Your task to perform on an android device: toggle location history Image 0: 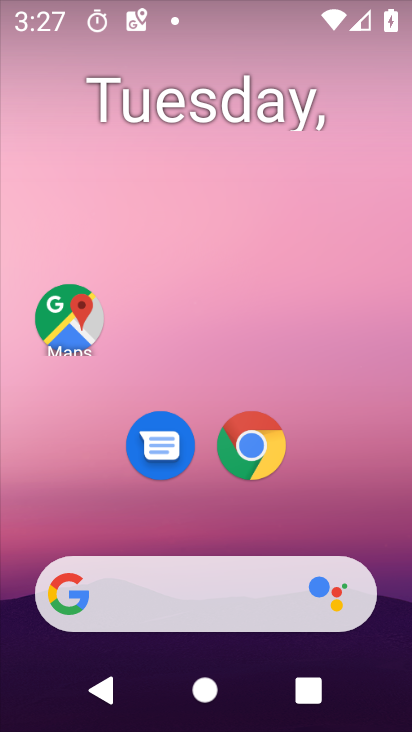
Step 0: drag from (185, 539) to (396, 75)
Your task to perform on an android device: toggle location history Image 1: 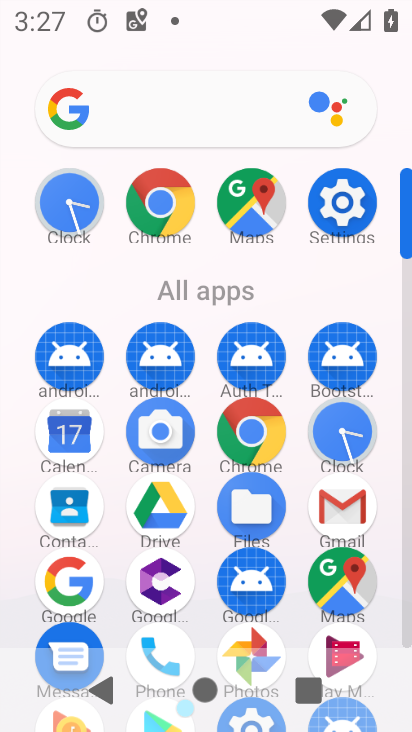
Step 1: click (332, 198)
Your task to perform on an android device: toggle location history Image 2: 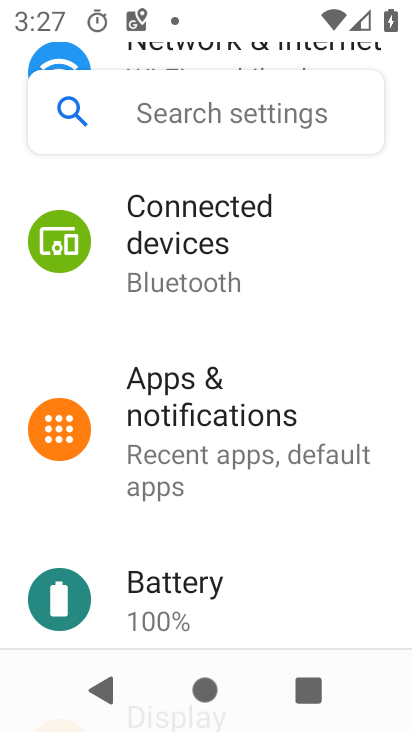
Step 2: drag from (252, 163) to (170, 4)
Your task to perform on an android device: toggle location history Image 3: 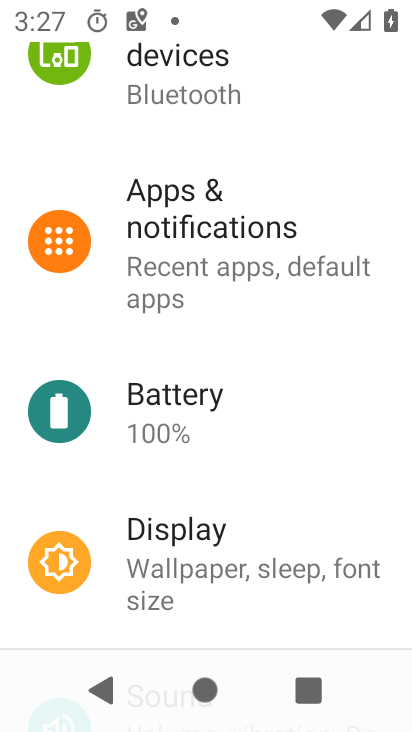
Step 3: drag from (192, 489) to (178, 77)
Your task to perform on an android device: toggle location history Image 4: 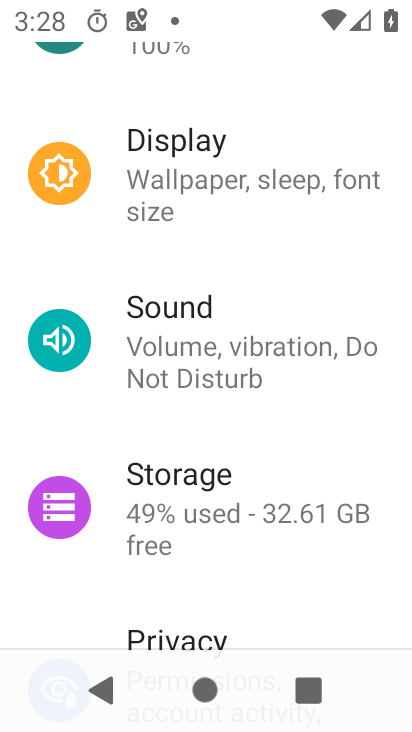
Step 4: drag from (190, 572) to (164, 160)
Your task to perform on an android device: toggle location history Image 5: 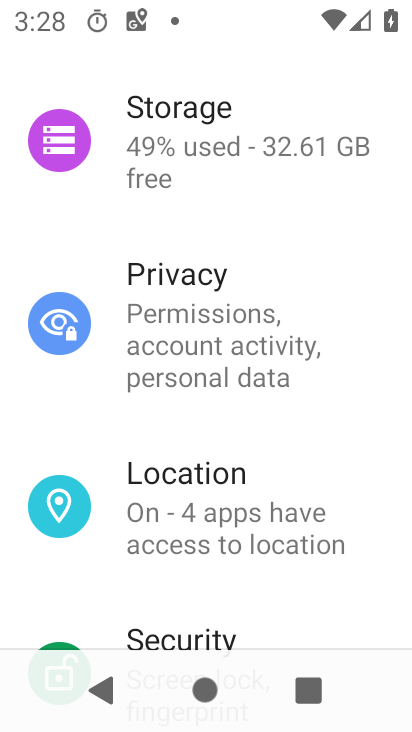
Step 5: click (102, 546)
Your task to perform on an android device: toggle location history Image 6: 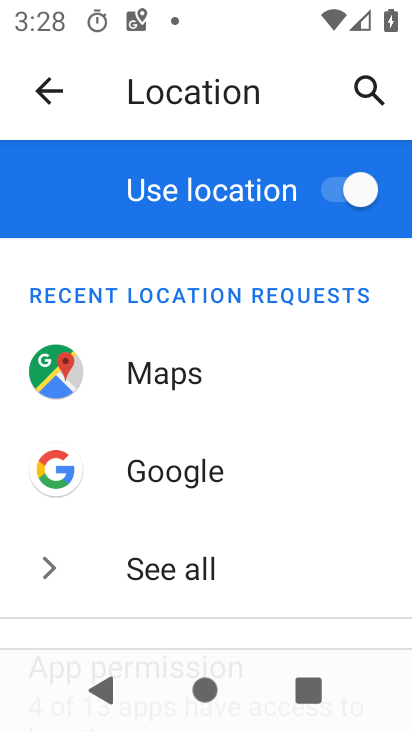
Step 6: drag from (227, 549) to (183, 102)
Your task to perform on an android device: toggle location history Image 7: 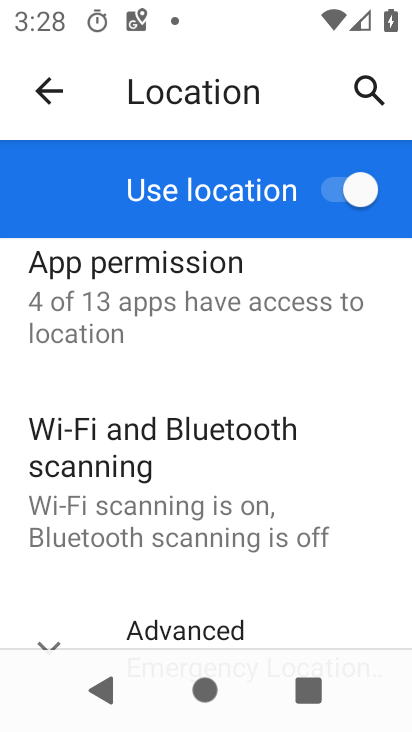
Step 7: click (144, 608)
Your task to perform on an android device: toggle location history Image 8: 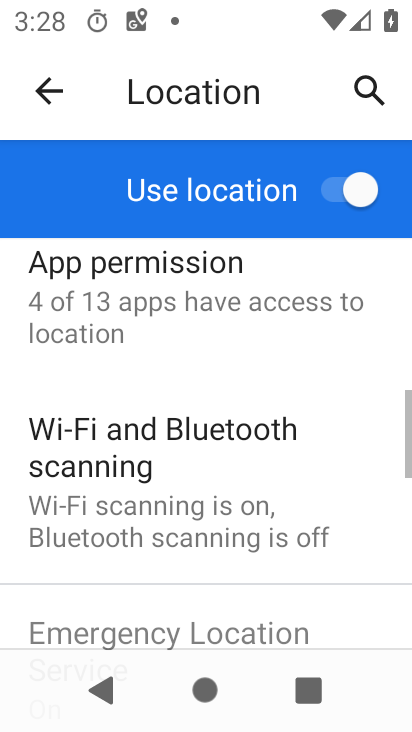
Step 8: drag from (144, 608) to (130, 112)
Your task to perform on an android device: toggle location history Image 9: 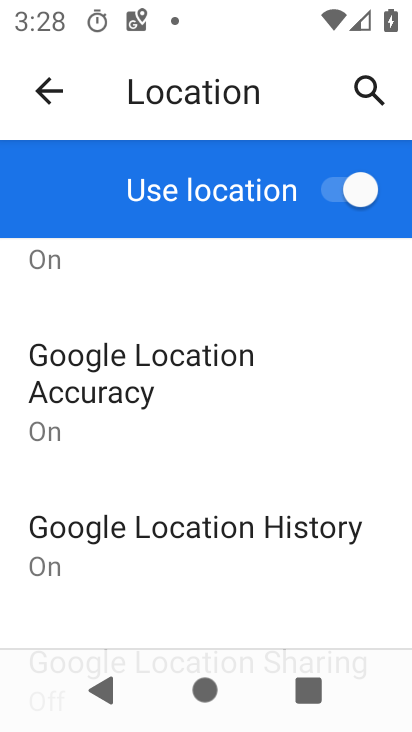
Step 9: click (172, 532)
Your task to perform on an android device: toggle location history Image 10: 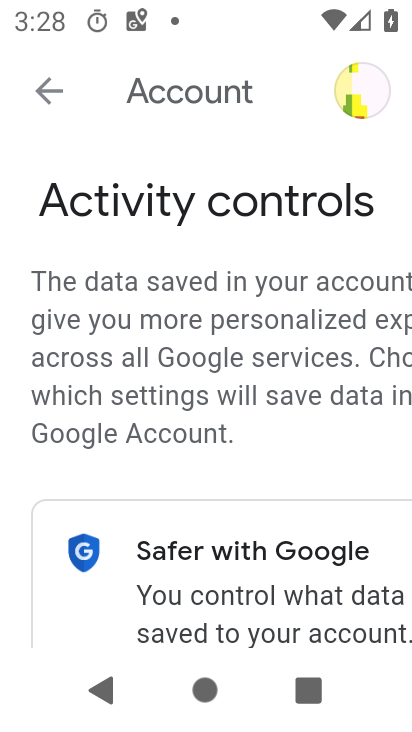
Step 10: drag from (191, 585) to (43, 2)
Your task to perform on an android device: toggle location history Image 11: 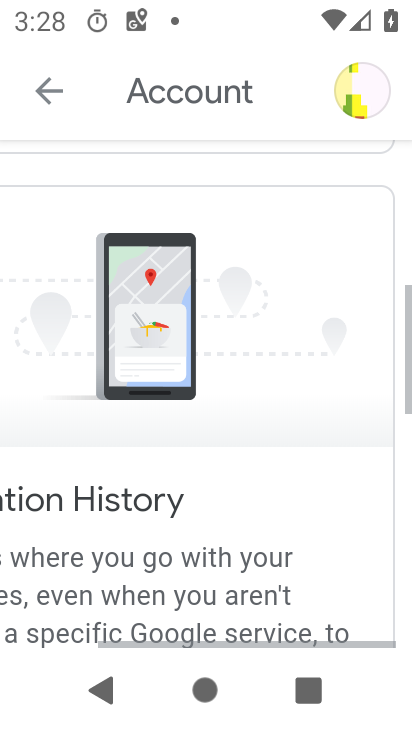
Step 11: drag from (160, 549) to (123, 51)
Your task to perform on an android device: toggle location history Image 12: 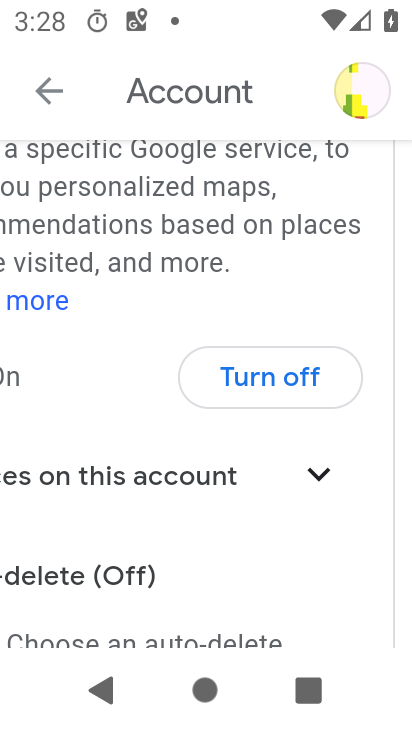
Step 12: click (256, 374)
Your task to perform on an android device: toggle location history Image 13: 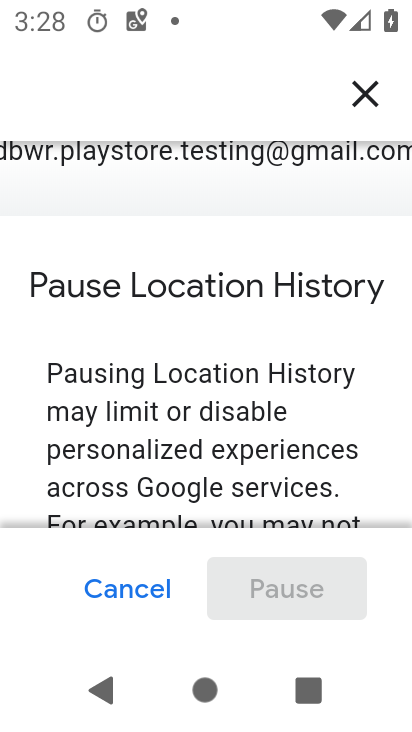
Step 13: drag from (273, 495) to (150, 20)
Your task to perform on an android device: toggle location history Image 14: 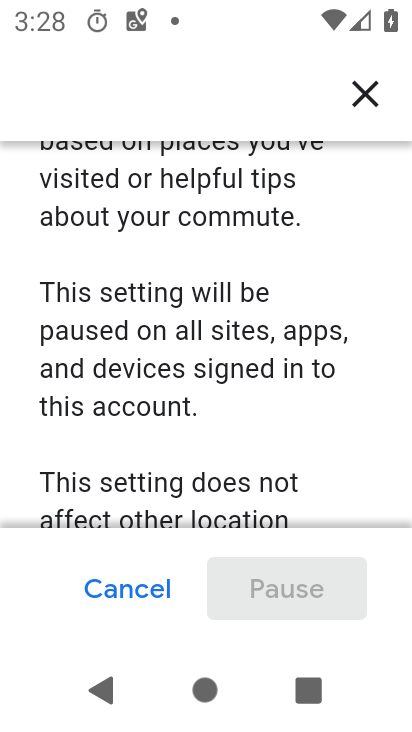
Step 14: drag from (219, 448) to (143, 19)
Your task to perform on an android device: toggle location history Image 15: 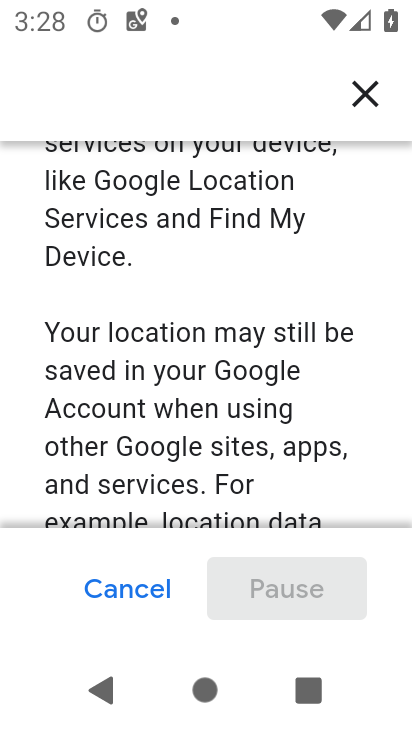
Step 15: drag from (286, 492) to (114, 5)
Your task to perform on an android device: toggle location history Image 16: 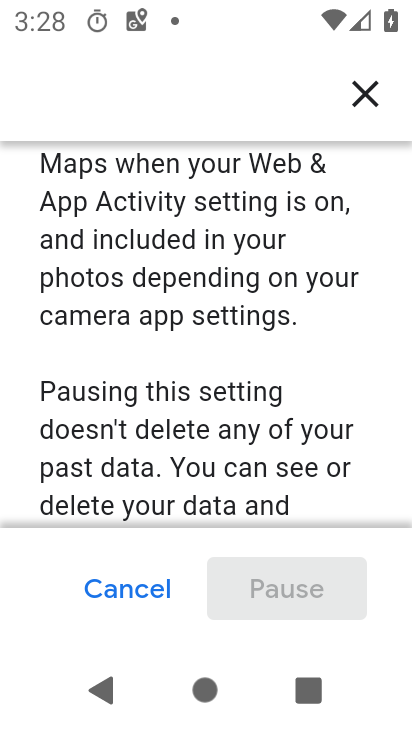
Step 16: drag from (286, 513) to (192, 35)
Your task to perform on an android device: toggle location history Image 17: 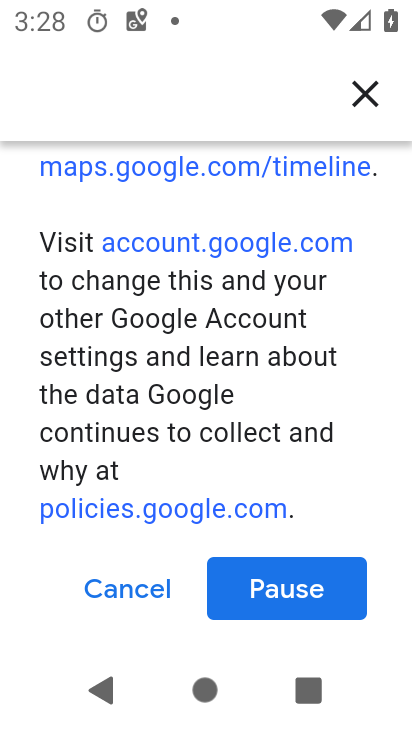
Step 17: click (278, 590)
Your task to perform on an android device: toggle location history Image 18: 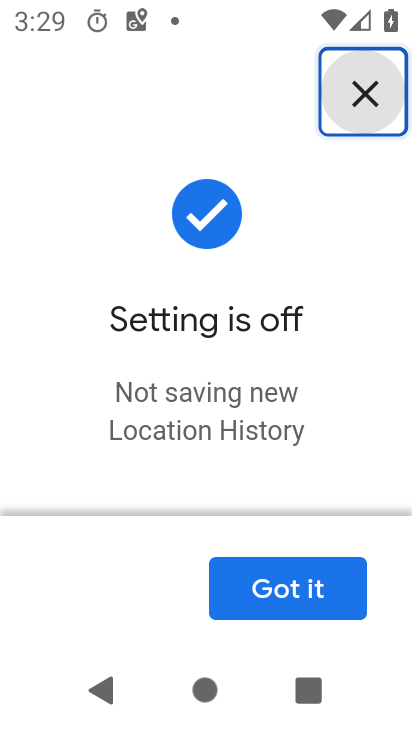
Step 18: click (296, 597)
Your task to perform on an android device: toggle location history Image 19: 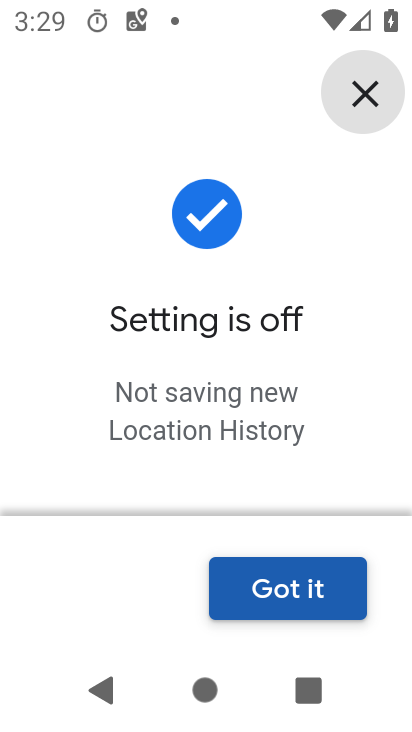
Step 19: task complete